Your task to perform on an android device: open chrome and create a bookmark for the current page Image 0: 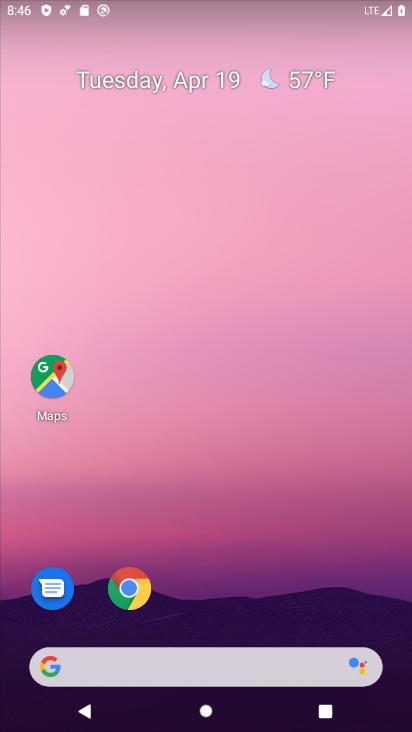
Step 0: click (115, 588)
Your task to perform on an android device: open chrome and create a bookmark for the current page Image 1: 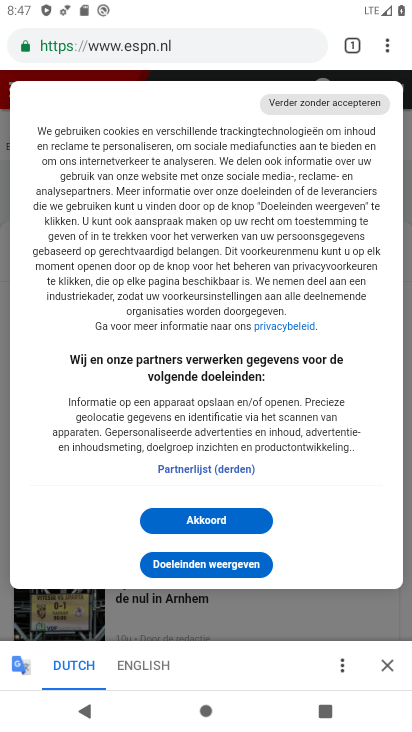
Step 1: click (384, 50)
Your task to perform on an android device: open chrome and create a bookmark for the current page Image 2: 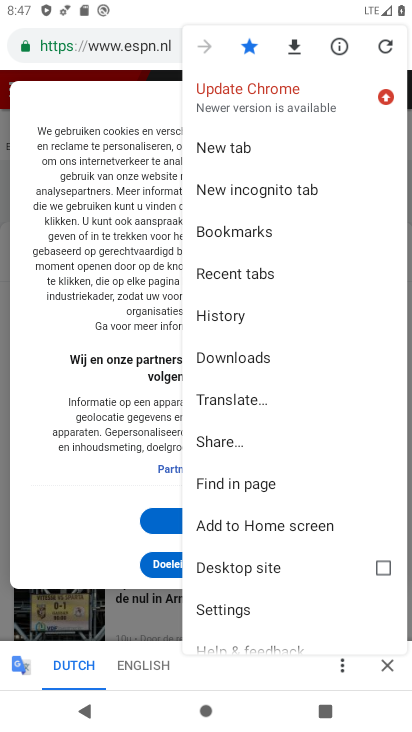
Step 2: task complete